Your task to perform on an android device: turn on the 24-hour format for clock Image 0: 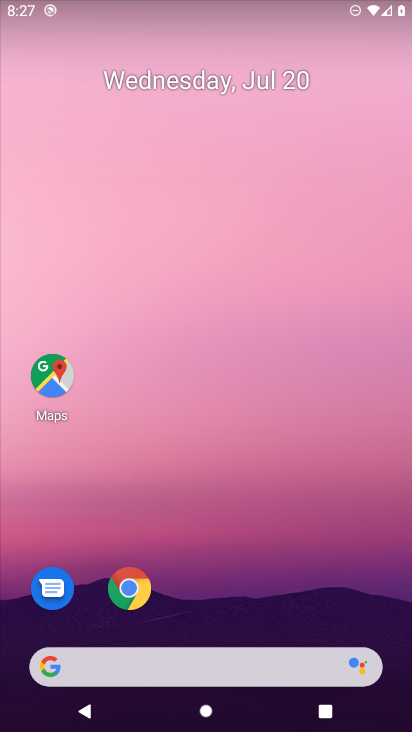
Step 0: drag from (28, 690) to (175, 125)
Your task to perform on an android device: turn on the 24-hour format for clock Image 1: 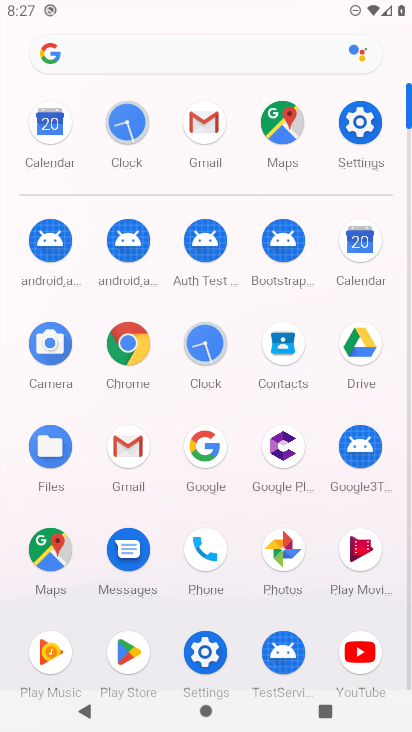
Step 1: click (208, 351)
Your task to perform on an android device: turn on the 24-hour format for clock Image 2: 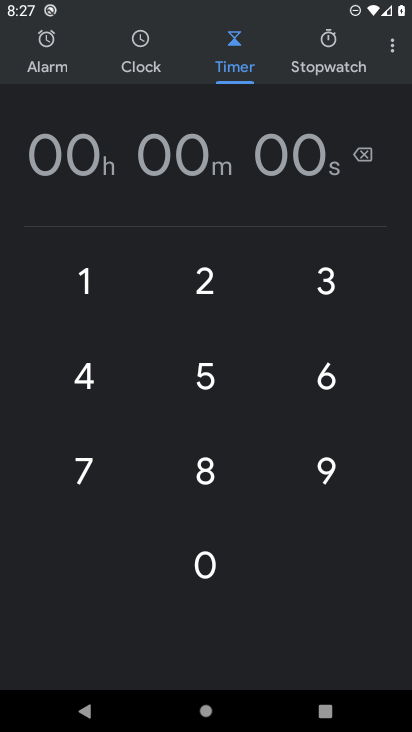
Step 2: click (149, 71)
Your task to perform on an android device: turn on the 24-hour format for clock Image 3: 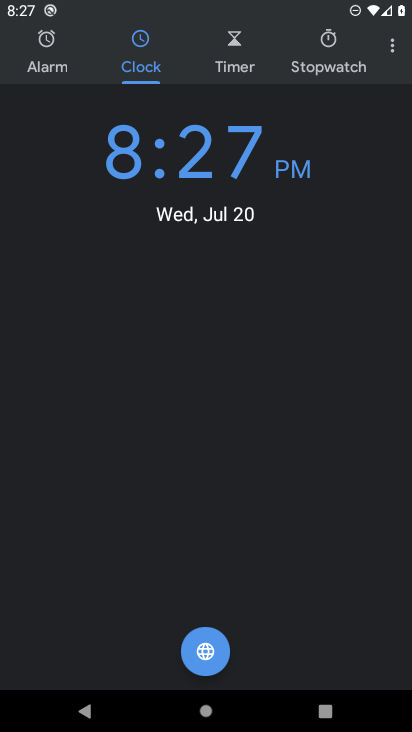
Step 3: click (392, 45)
Your task to perform on an android device: turn on the 24-hour format for clock Image 4: 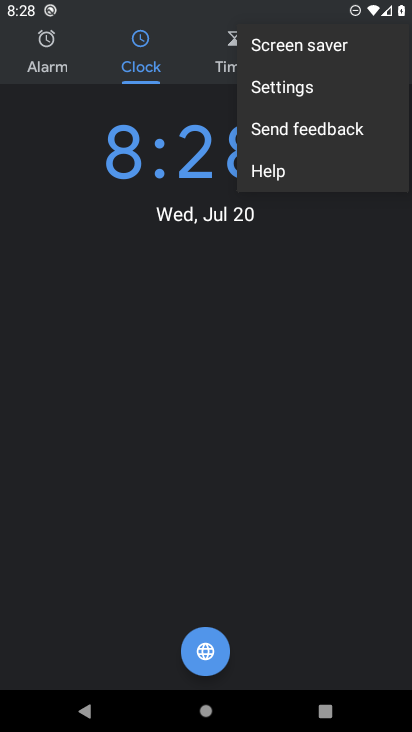
Step 4: click (286, 100)
Your task to perform on an android device: turn on the 24-hour format for clock Image 5: 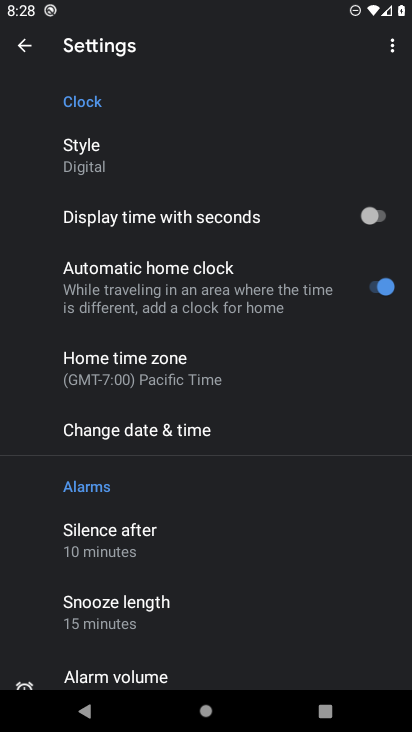
Step 5: click (219, 434)
Your task to perform on an android device: turn on the 24-hour format for clock Image 6: 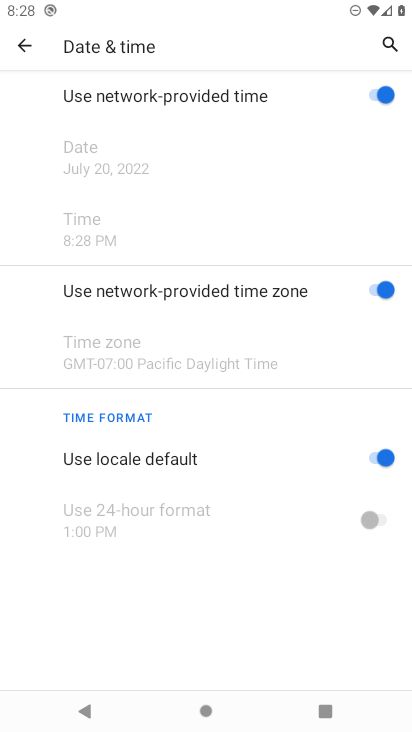
Step 6: click (390, 450)
Your task to perform on an android device: turn on the 24-hour format for clock Image 7: 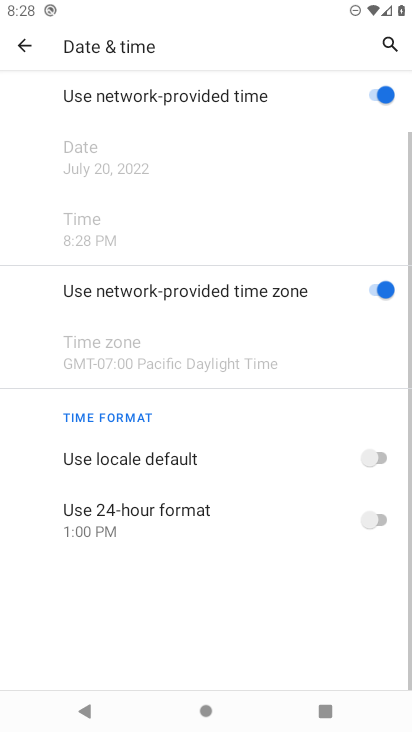
Step 7: click (369, 516)
Your task to perform on an android device: turn on the 24-hour format for clock Image 8: 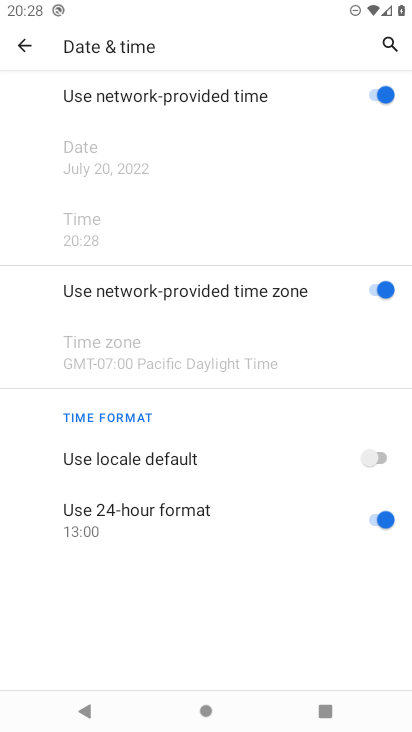
Step 8: task complete